Your task to perform on an android device: What's the weather going to be tomorrow? Image 0: 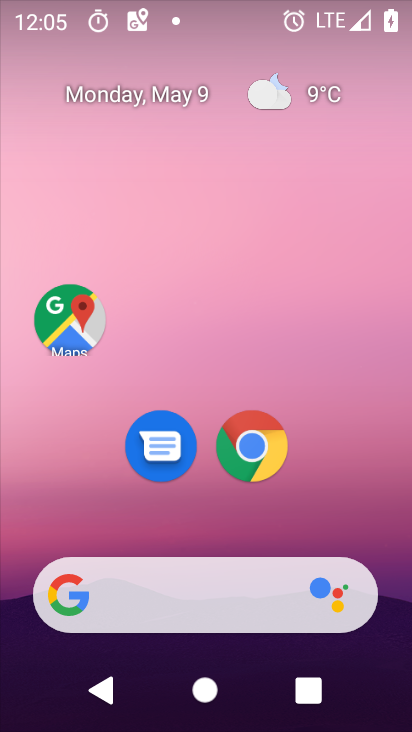
Step 0: click (326, 101)
Your task to perform on an android device: What's the weather going to be tomorrow? Image 1: 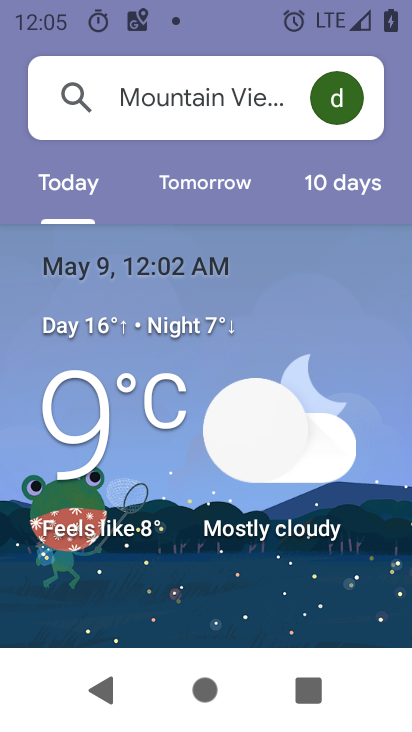
Step 1: click (185, 188)
Your task to perform on an android device: What's the weather going to be tomorrow? Image 2: 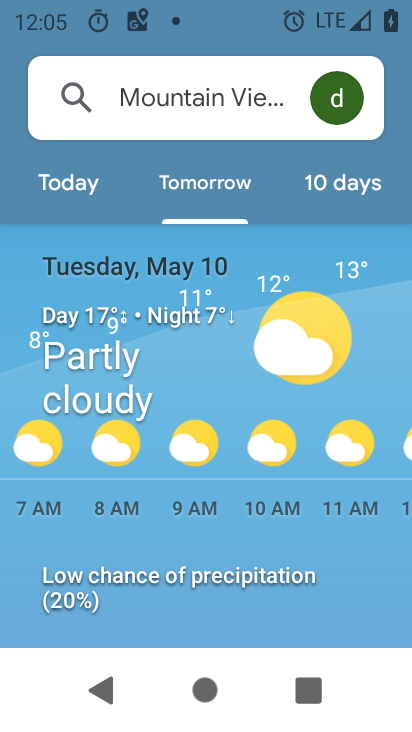
Step 2: task complete